Your task to perform on an android device: Go to accessibility settings Image 0: 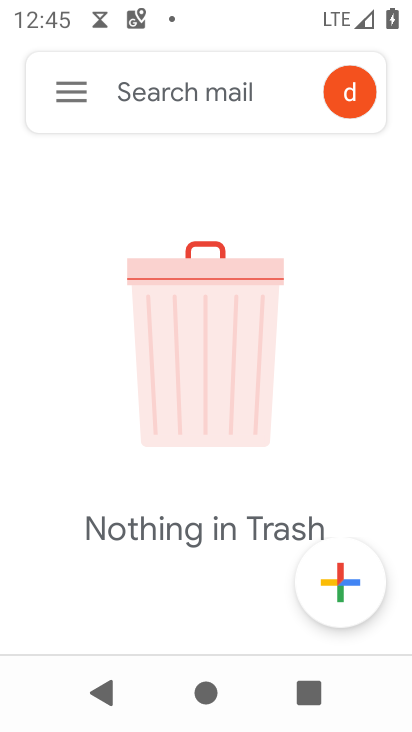
Step 0: press home button
Your task to perform on an android device: Go to accessibility settings Image 1: 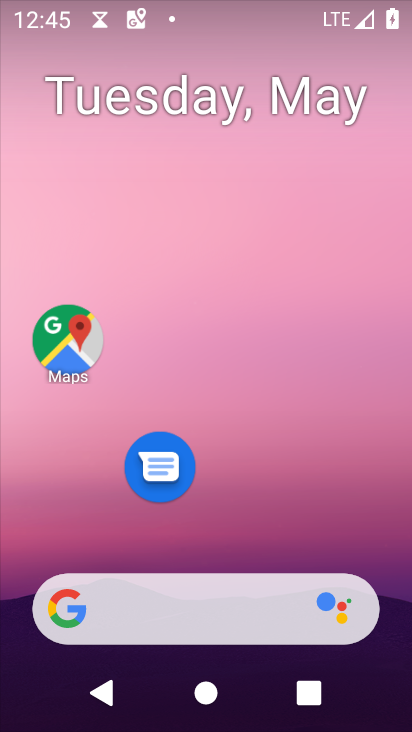
Step 1: drag from (226, 546) to (252, 22)
Your task to perform on an android device: Go to accessibility settings Image 2: 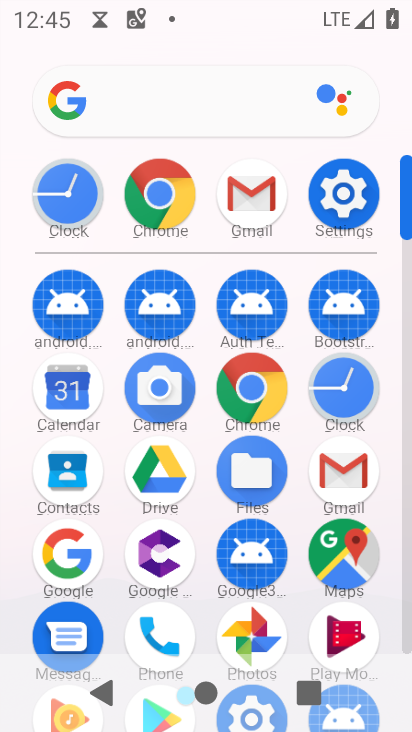
Step 2: click (353, 190)
Your task to perform on an android device: Go to accessibility settings Image 3: 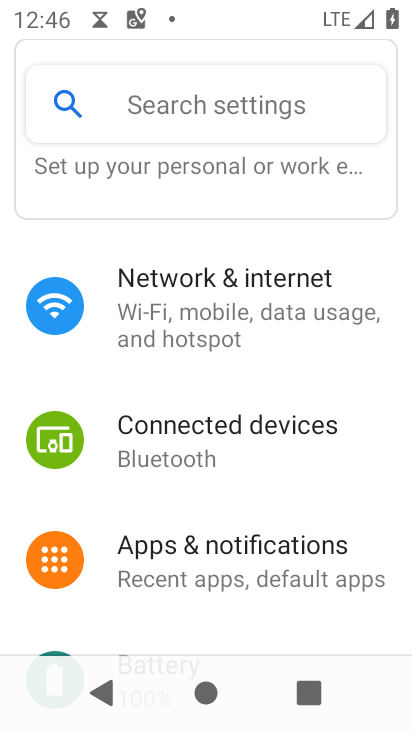
Step 3: drag from (271, 497) to (307, 65)
Your task to perform on an android device: Go to accessibility settings Image 4: 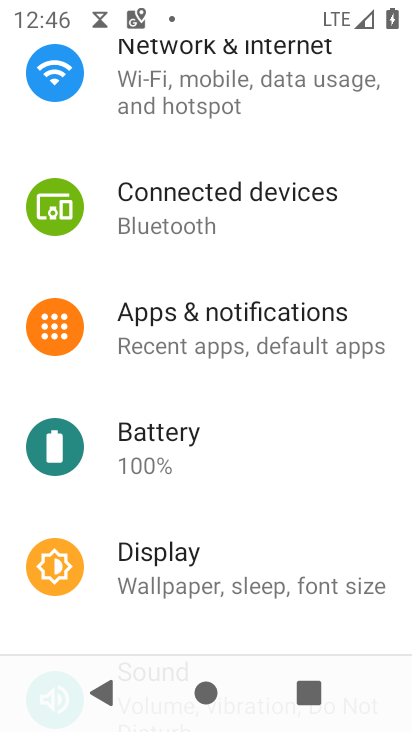
Step 4: drag from (262, 512) to (225, 166)
Your task to perform on an android device: Go to accessibility settings Image 5: 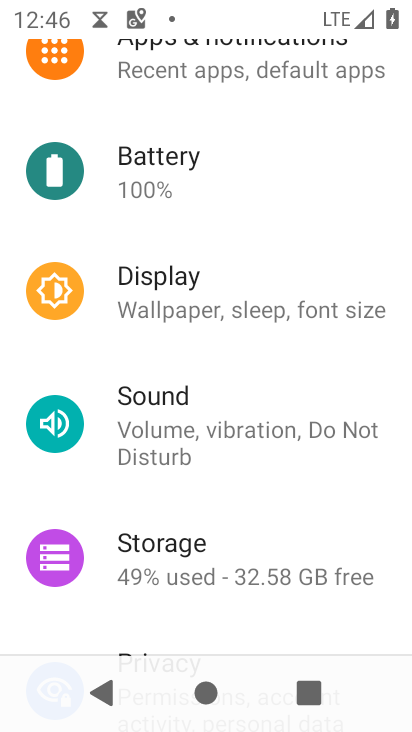
Step 5: drag from (220, 517) to (234, 16)
Your task to perform on an android device: Go to accessibility settings Image 6: 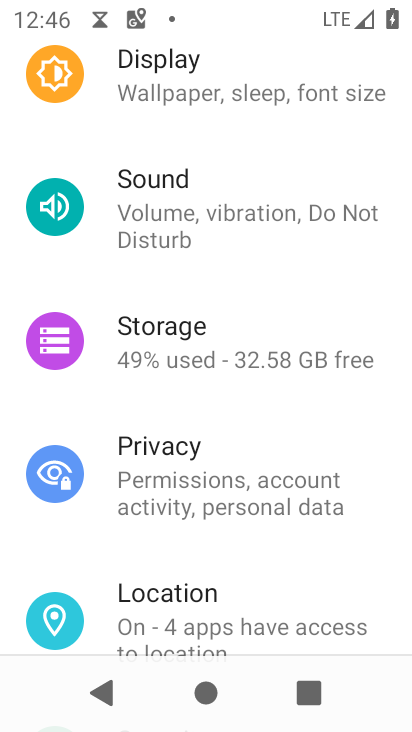
Step 6: drag from (252, 566) to (292, 99)
Your task to perform on an android device: Go to accessibility settings Image 7: 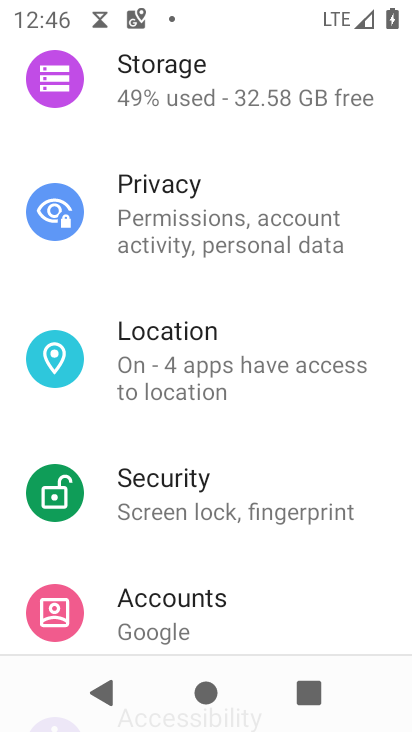
Step 7: drag from (274, 600) to (281, 231)
Your task to perform on an android device: Go to accessibility settings Image 8: 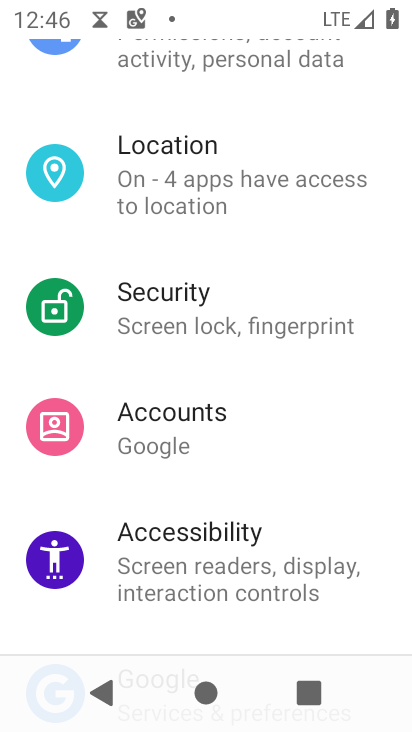
Step 8: click (245, 546)
Your task to perform on an android device: Go to accessibility settings Image 9: 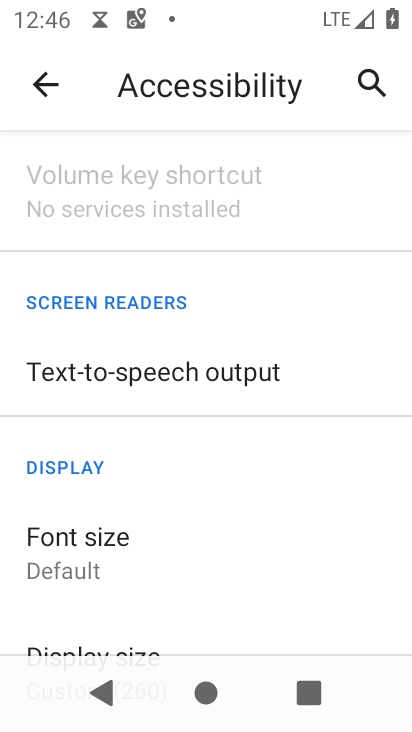
Step 9: task complete